Your task to perform on an android device: toggle show notifications on the lock screen Image 0: 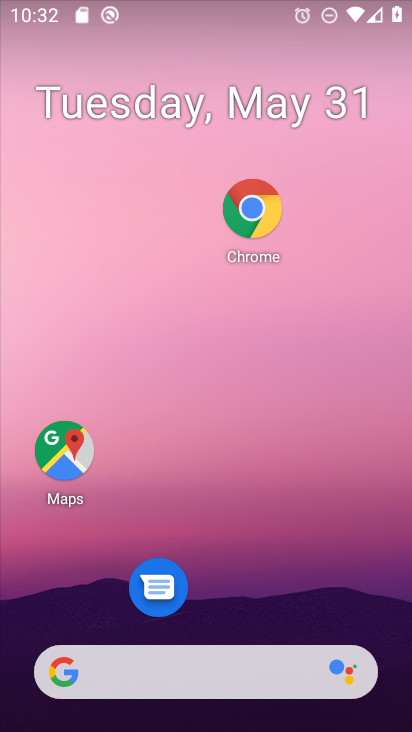
Step 0: press home button
Your task to perform on an android device: toggle show notifications on the lock screen Image 1: 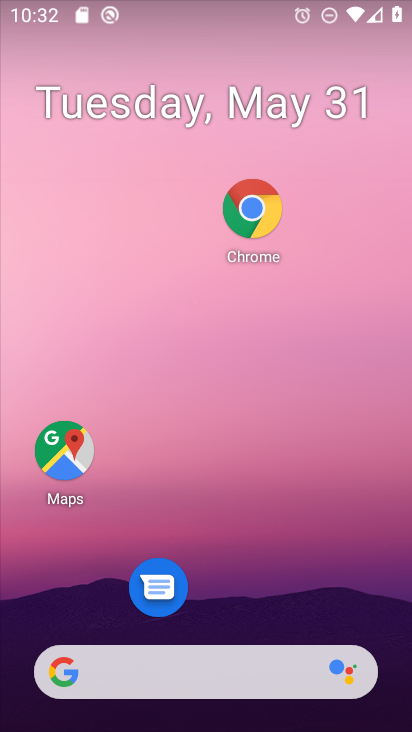
Step 1: drag from (218, 629) to (229, 48)
Your task to perform on an android device: toggle show notifications on the lock screen Image 2: 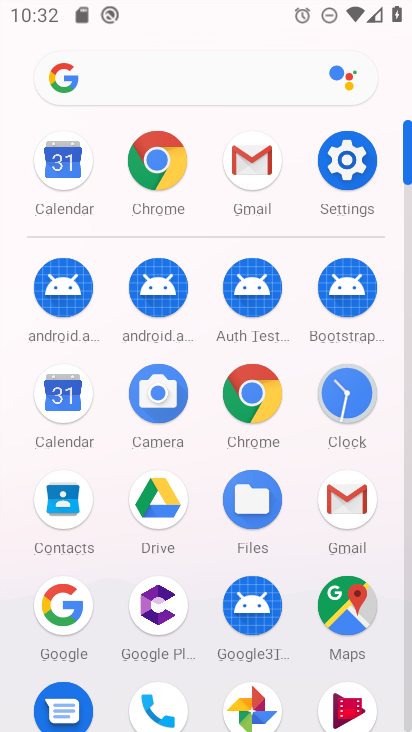
Step 2: click (343, 151)
Your task to perform on an android device: toggle show notifications on the lock screen Image 3: 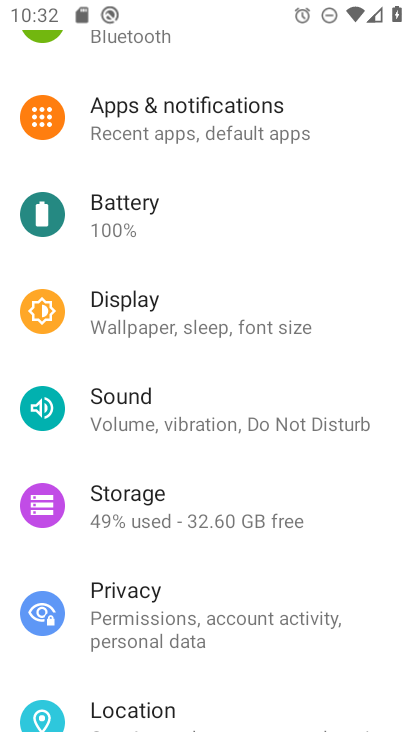
Step 3: click (215, 109)
Your task to perform on an android device: toggle show notifications on the lock screen Image 4: 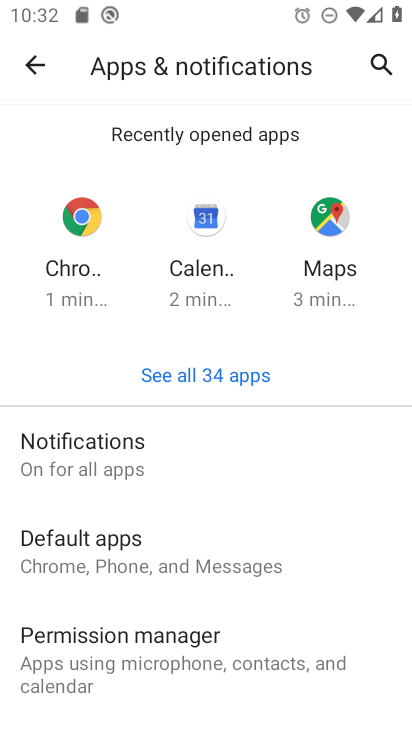
Step 4: click (167, 452)
Your task to perform on an android device: toggle show notifications on the lock screen Image 5: 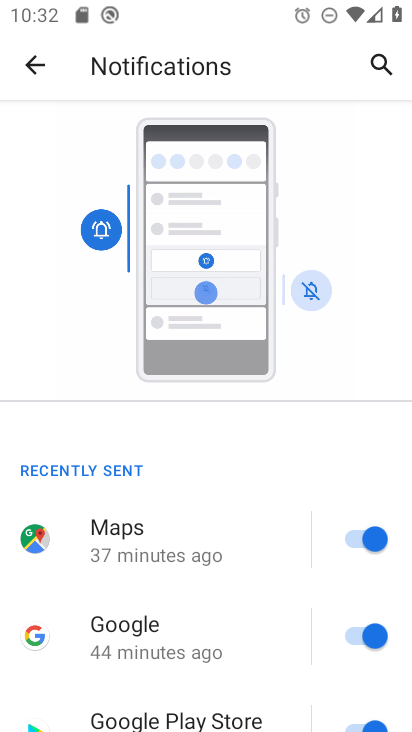
Step 5: drag from (264, 654) to (266, 147)
Your task to perform on an android device: toggle show notifications on the lock screen Image 6: 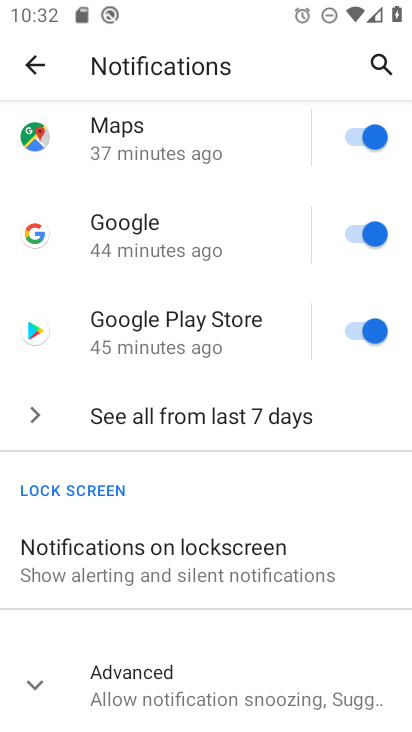
Step 6: click (304, 557)
Your task to perform on an android device: toggle show notifications on the lock screen Image 7: 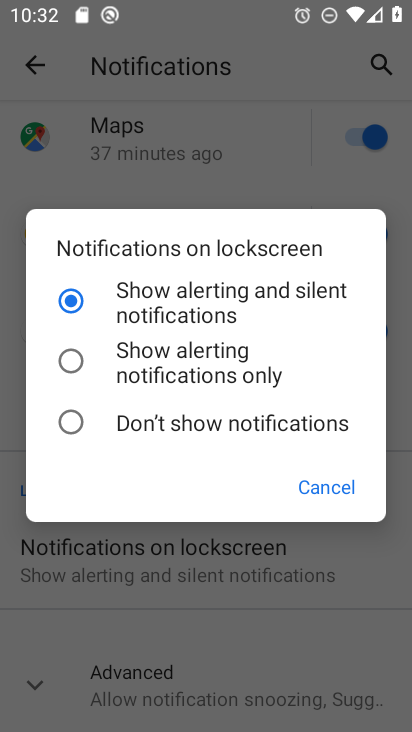
Step 7: click (72, 352)
Your task to perform on an android device: toggle show notifications on the lock screen Image 8: 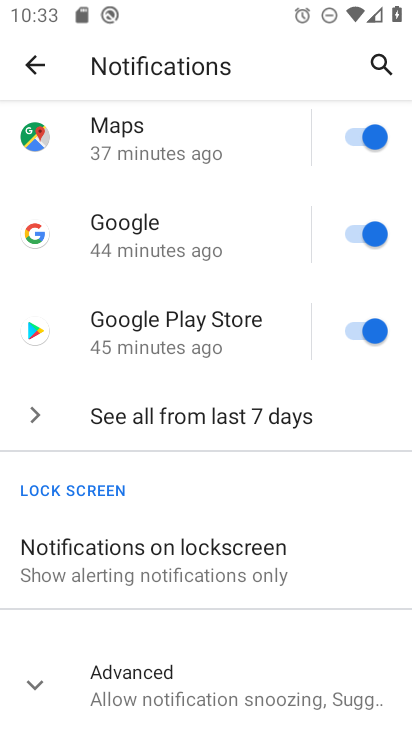
Step 8: task complete